Your task to perform on an android device: Open settings on Google Maps Image 0: 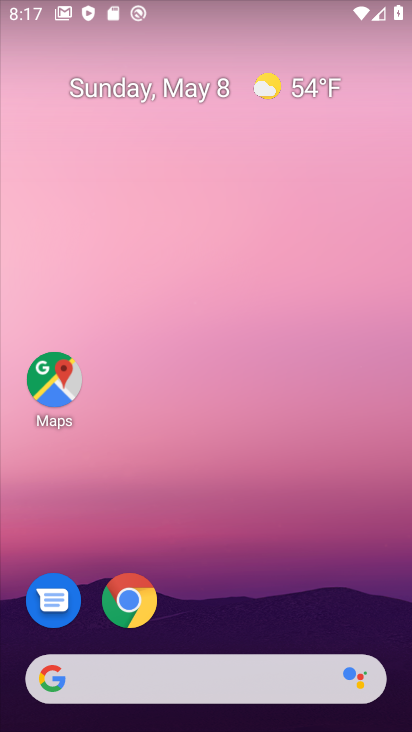
Step 0: click (43, 359)
Your task to perform on an android device: Open settings on Google Maps Image 1: 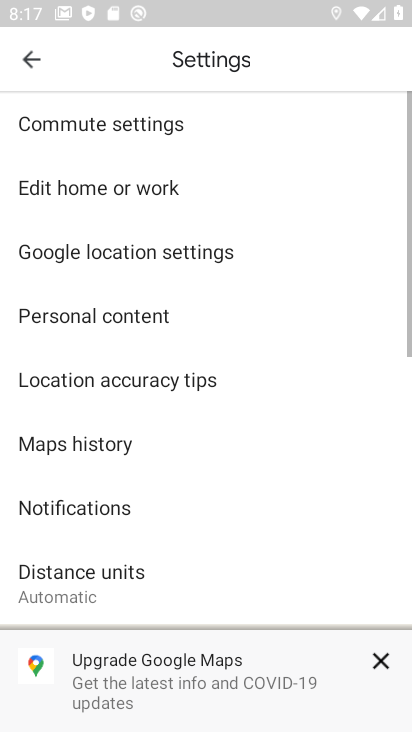
Step 1: task complete